Your task to perform on an android device: turn off translation in the chrome app Image 0: 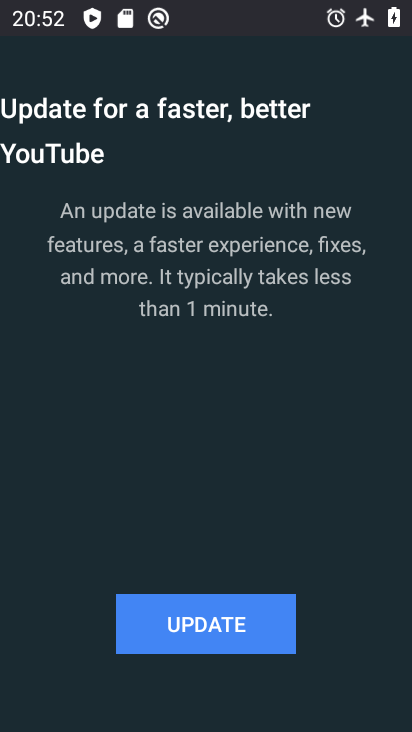
Step 0: press home button
Your task to perform on an android device: turn off translation in the chrome app Image 1: 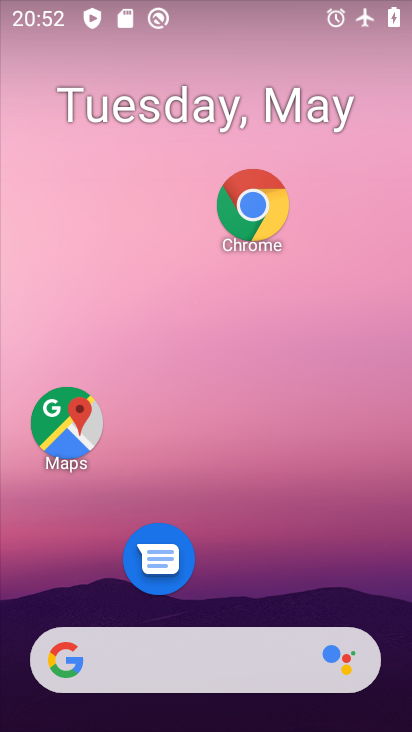
Step 1: click (271, 207)
Your task to perform on an android device: turn off translation in the chrome app Image 2: 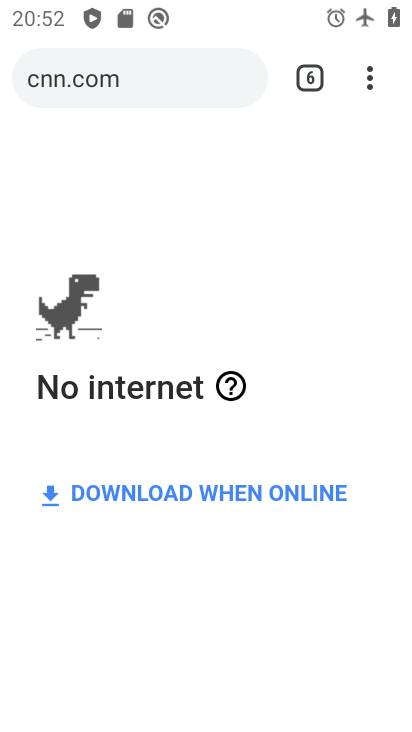
Step 2: drag from (375, 82) to (193, 621)
Your task to perform on an android device: turn off translation in the chrome app Image 3: 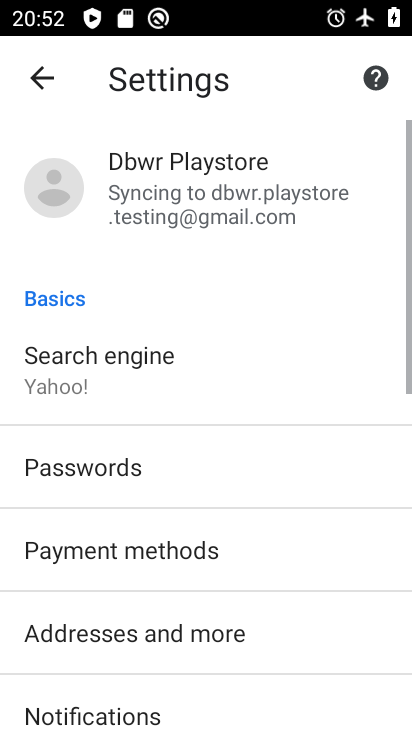
Step 3: drag from (237, 590) to (249, 252)
Your task to perform on an android device: turn off translation in the chrome app Image 4: 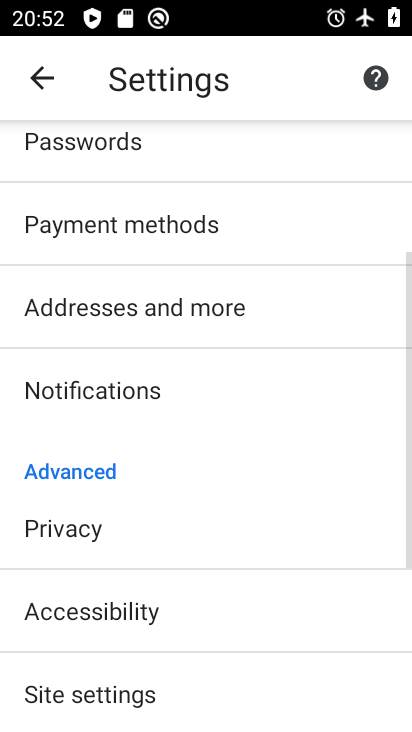
Step 4: drag from (197, 636) to (246, 319)
Your task to perform on an android device: turn off translation in the chrome app Image 5: 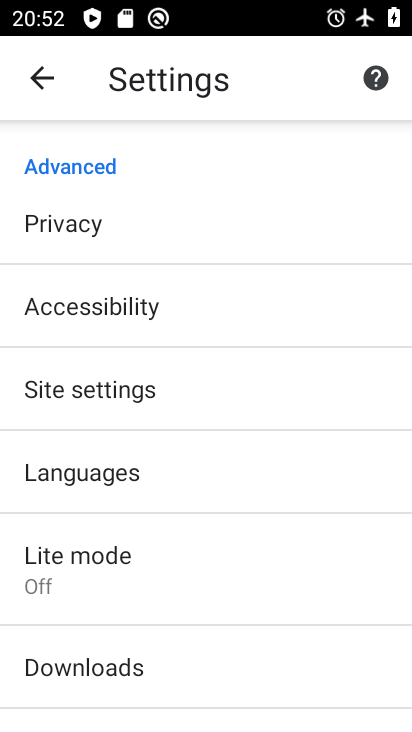
Step 5: click (161, 486)
Your task to perform on an android device: turn off translation in the chrome app Image 6: 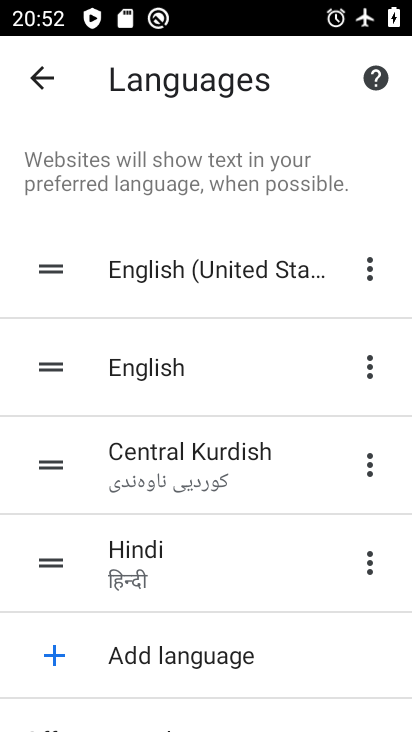
Step 6: task complete